Your task to perform on an android device: Play the last video I watched on Youtube Image 0: 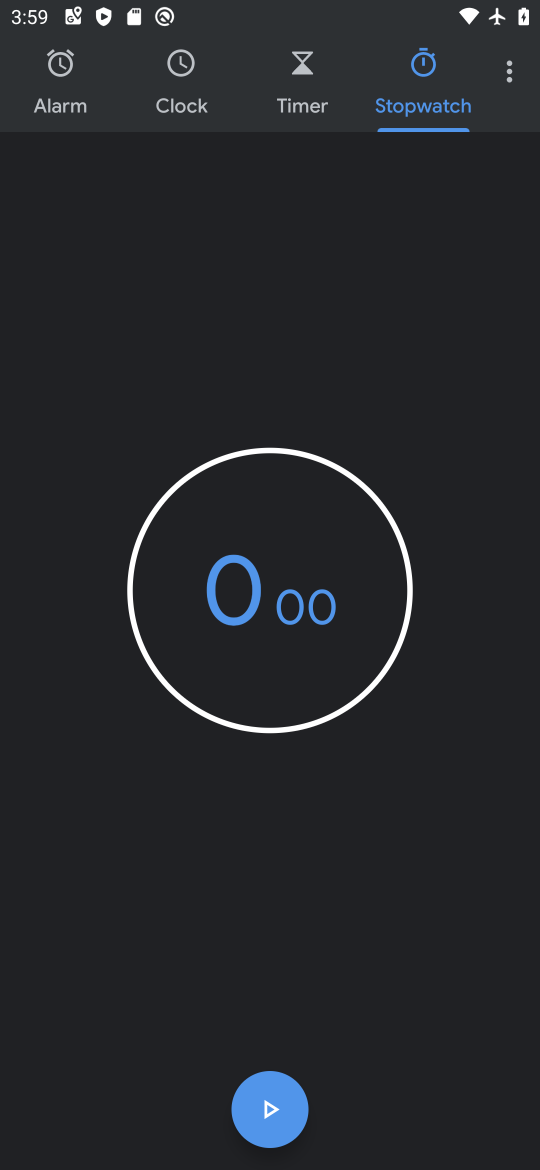
Step 0: press home button
Your task to perform on an android device: Play the last video I watched on Youtube Image 1: 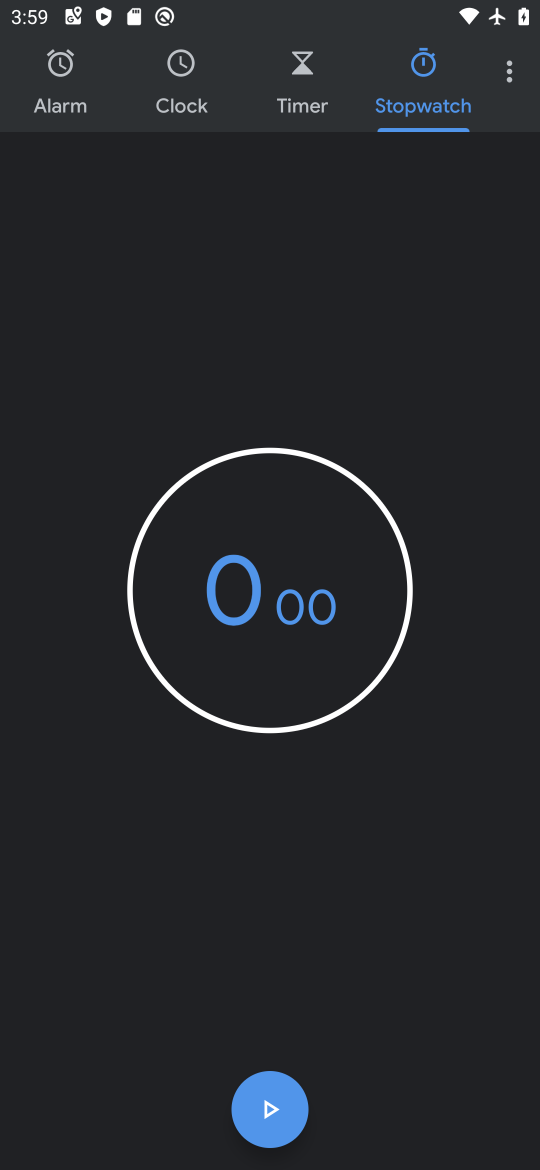
Step 1: press home button
Your task to perform on an android device: Play the last video I watched on Youtube Image 2: 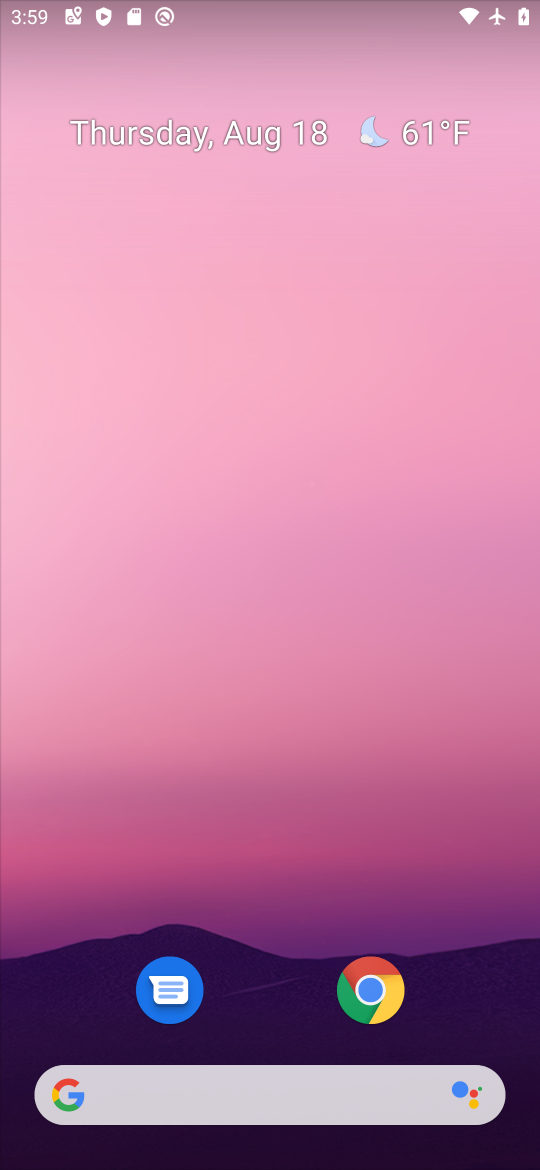
Step 2: drag from (242, 701) to (360, 76)
Your task to perform on an android device: Play the last video I watched on Youtube Image 3: 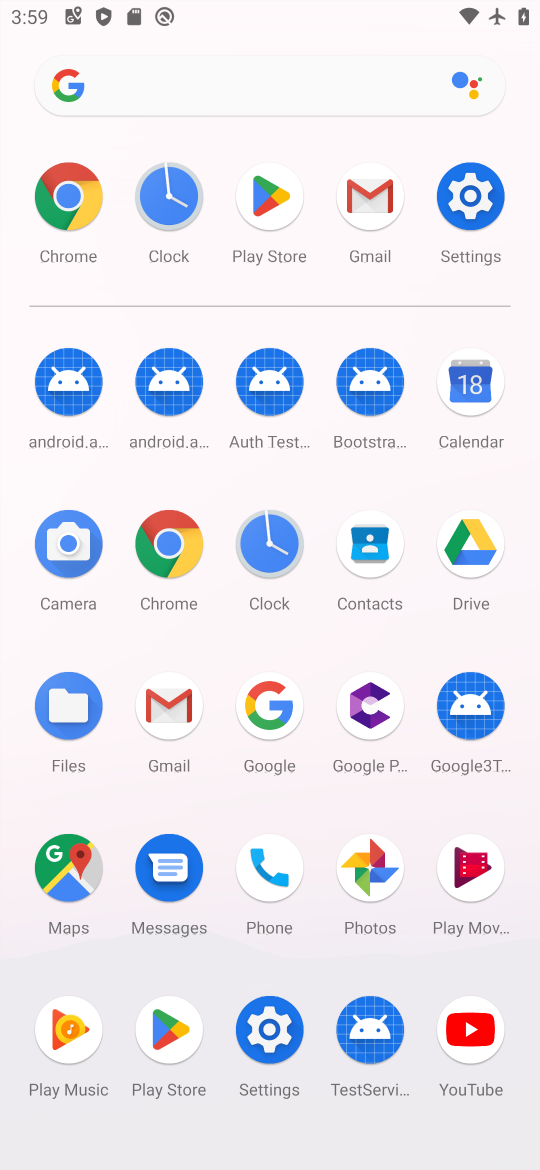
Step 3: click (475, 1022)
Your task to perform on an android device: Play the last video I watched on Youtube Image 4: 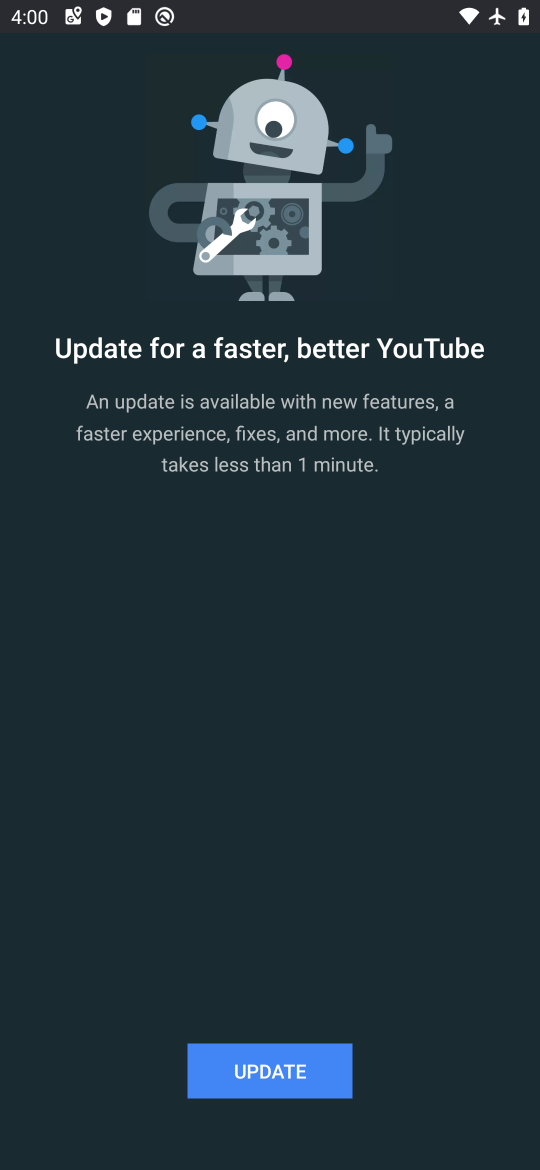
Step 4: click (250, 1074)
Your task to perform on an android device: Play the last video I watched on Youtube Image 5: 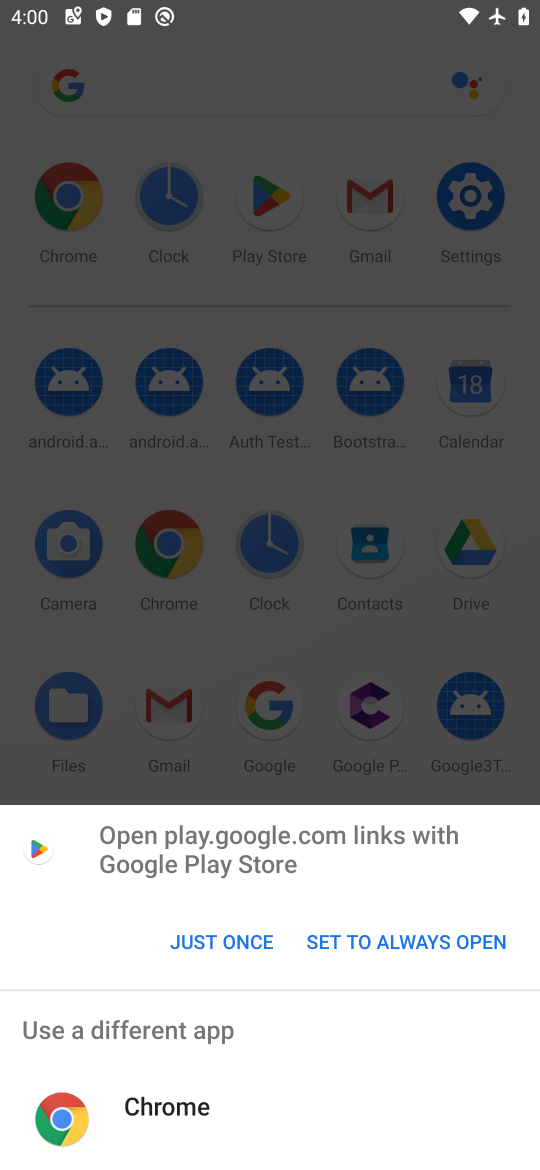
Step 5: click (208, 935)
Your task to perform on an android device: Play the last video I watched on Youtube Image 6: 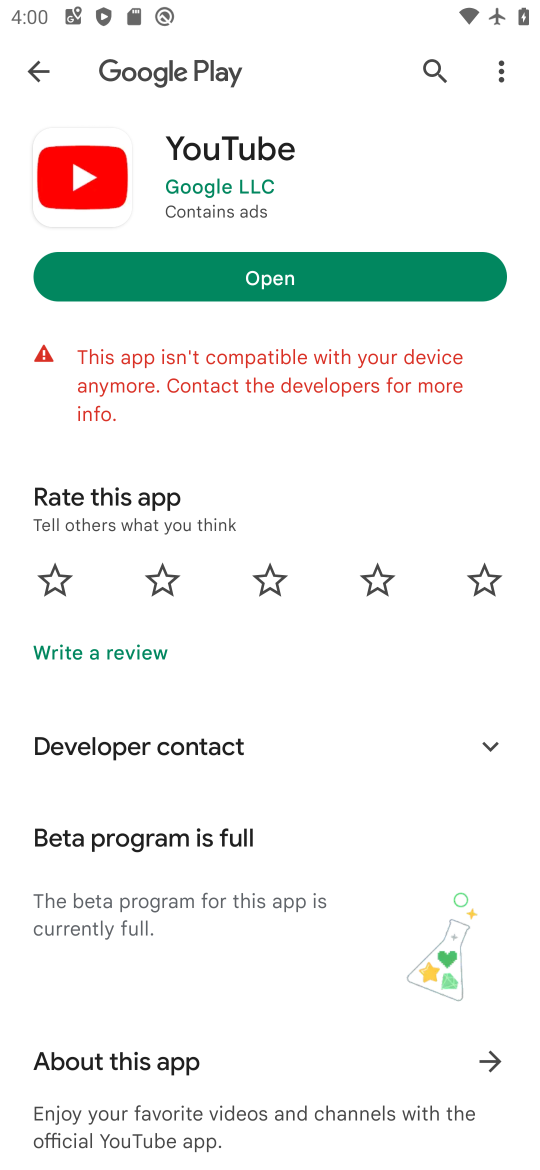
Step 6: task complete